Your task to perform on an android device: Open calendar and show me the fourth week of next month Image 0: 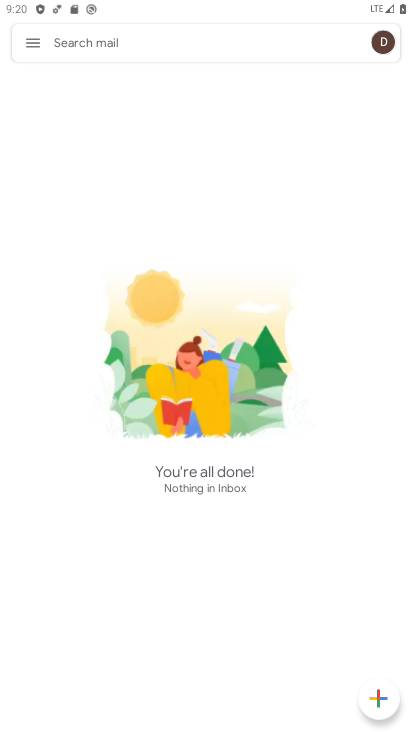
Step 0: press home button
Your task to perform on an android device: Open calendar and show me the fourth week of next month Image 1: 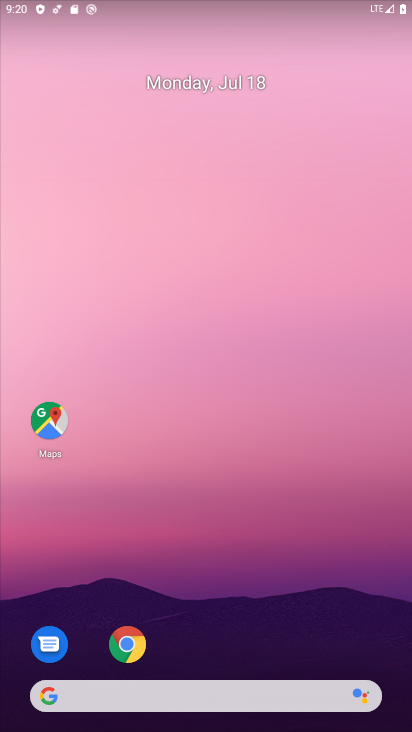
Step 1: drag from (357, 633) to (331, 128)
Your task to perform on an android device: Open calendar and show me the fourth week of next month Image 2: 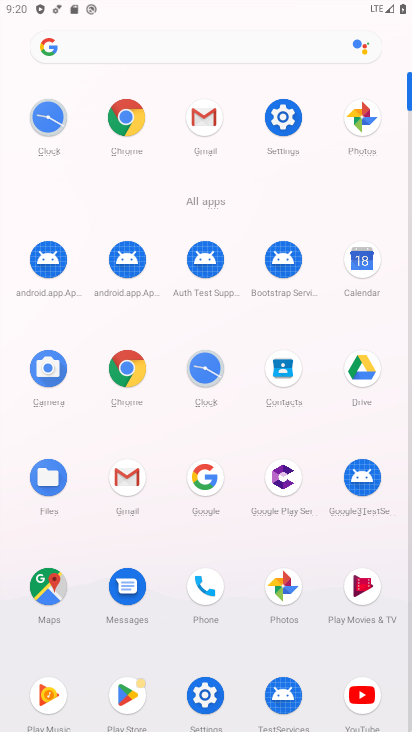
Step 2: click (366, 259)
Your task to perform on an android device: Open calendar and show me the fourth week of next month Image 3: 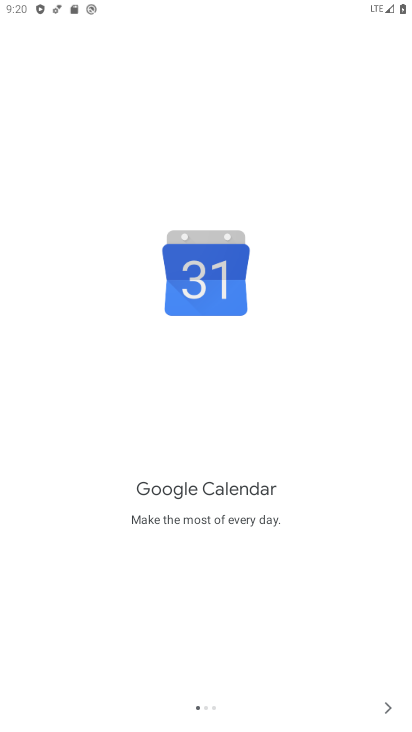
Step 3: click (381, 707)
Your task to perform on an android device: Open calendar and show me the fourth week of next month Image 4: 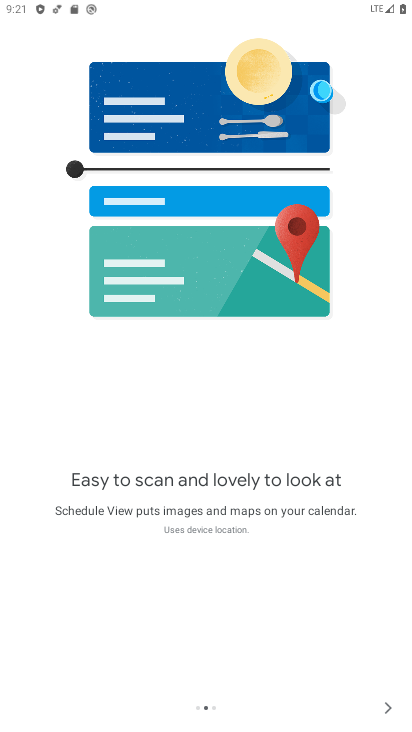
Step 4: click (381, 707)
Your task to perform on an android device: Open calendar and show me the fourth week of next month Image 5: 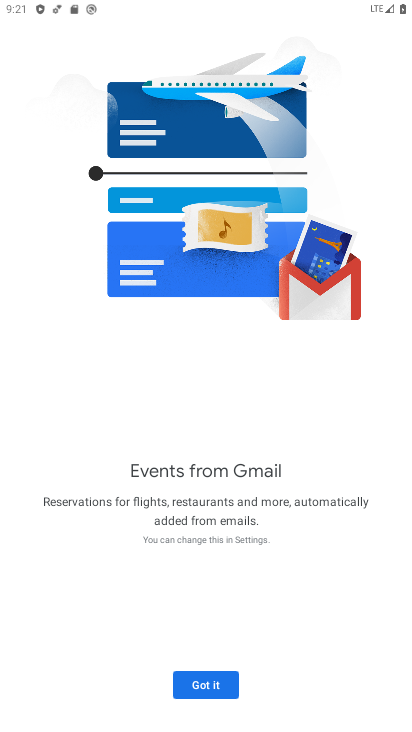
Step 5: click (217, 690)
Your task to perform on an android device: Open calendar and show me the fourth week of next month Image 6: 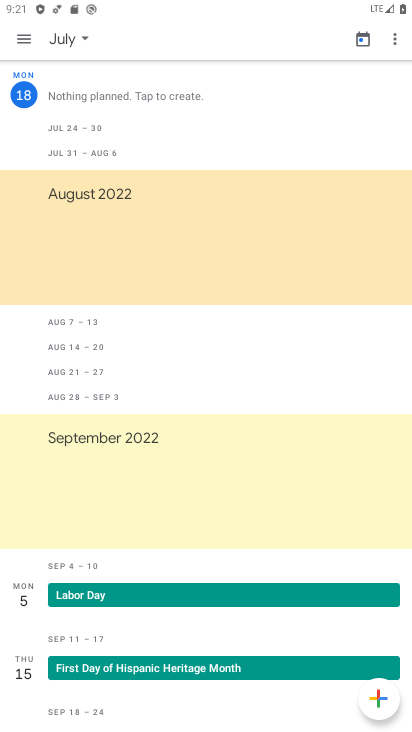
Step 6: click (91, 40)
Your task to perform on an android device: Open calendar and show me the fourth week of next month Image 7: 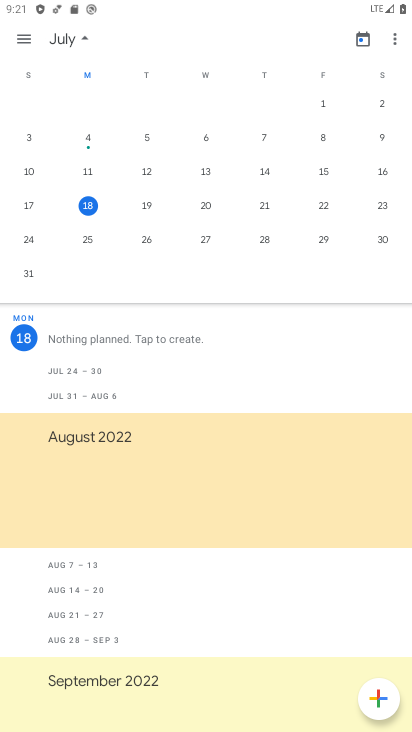
Step 7: drag from (383, 119) to (60, 110)
Your task to perform on an android device: Open calendar and show me the fourth week of next month Image 8: 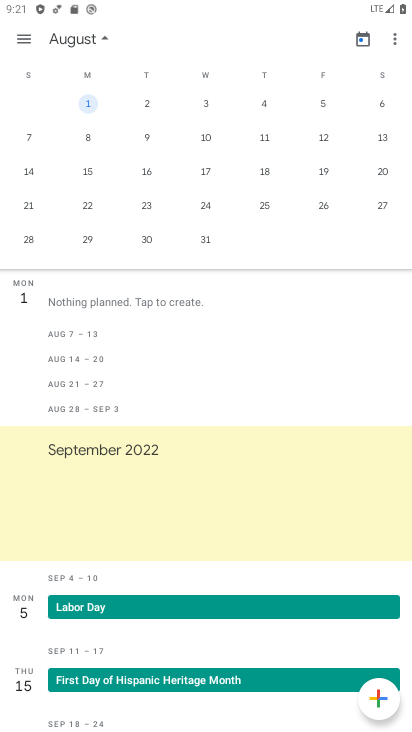
Step 8: click (83, 205)
Your task to perform on an android device: Open calendar and show me the fourth week of next month Image 9: 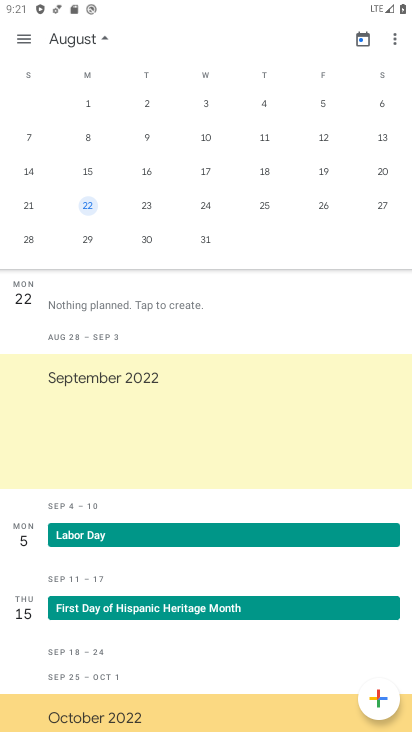
Step 9: task complete